Your task to perform on an android device: Show me the alarms in the clock app Image 0: 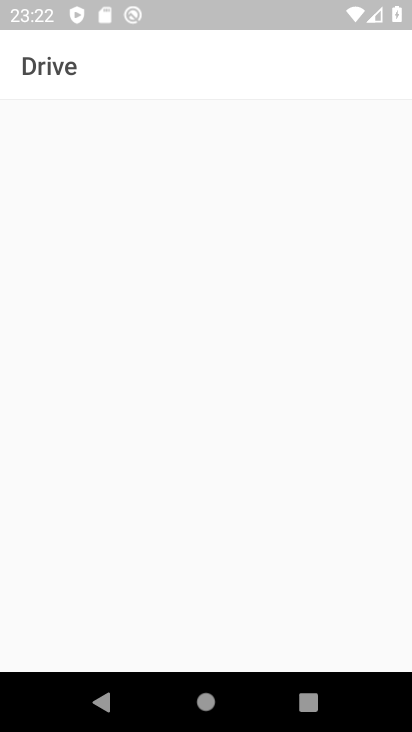
Step 0: press home button
Your task to perform on an android device: Show me the alarms in the clock app Image 1: 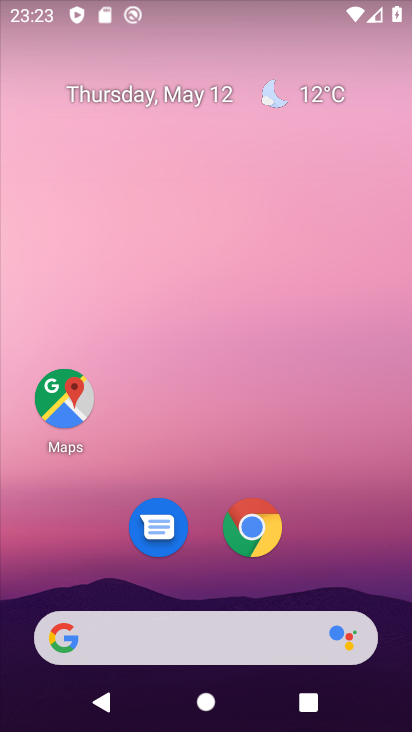
Step 1: drag from (34, 598) to (290, 129)
Your task to perform on an android device: Show me the alarms in the clock app Image 2: 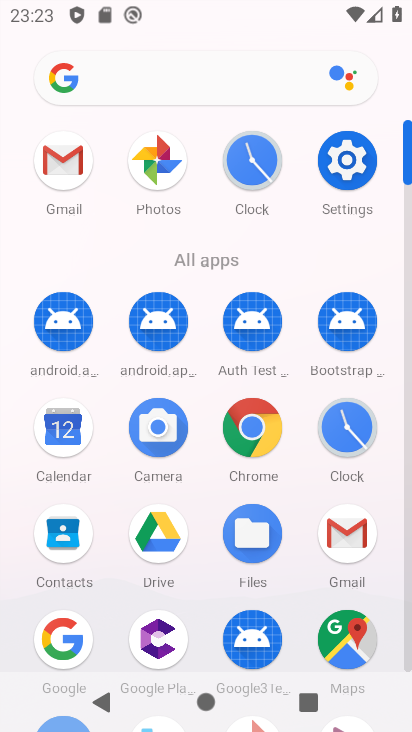
Step 2: click (348, 429)
Your task to perform on an android device: Show me the alarms in the clock app Image 3: 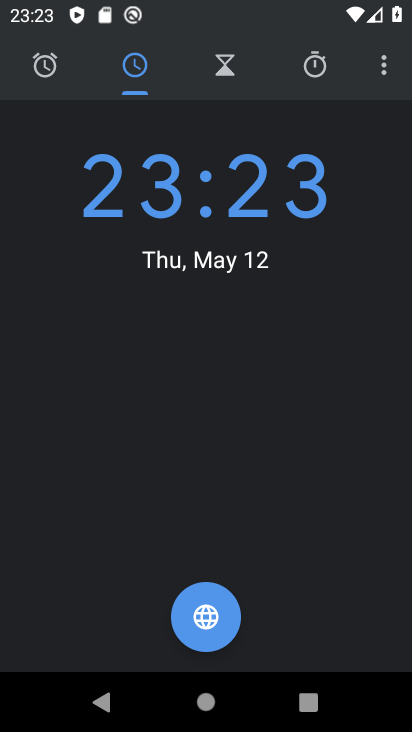
Step 3: click (46, 78)
Your task to perform on an android device: Show me the alarms in the clock app Image 4: 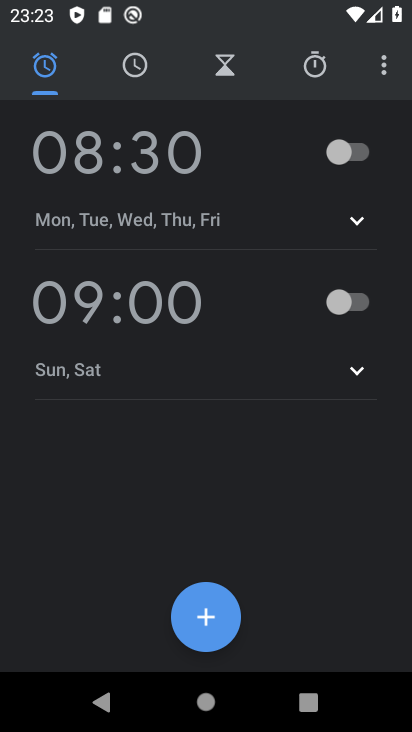
Step 4: task complete